Your task to perform on an android device: Go to notification settings Image 0: 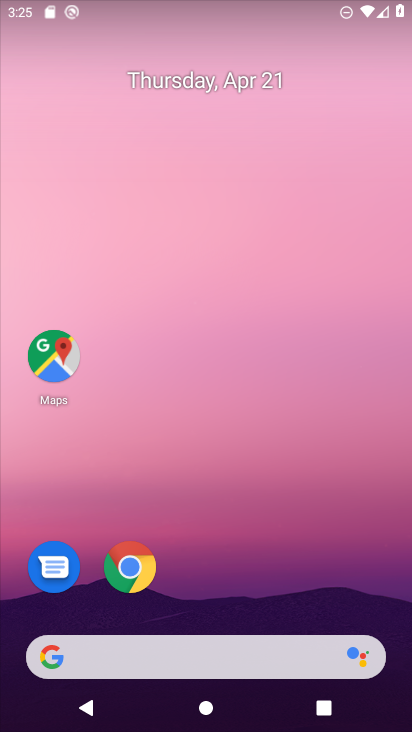
Step 0: drag from (245, 602) to (237, 105)
Your task to perform on an android device: Go to notification settings Image 1: 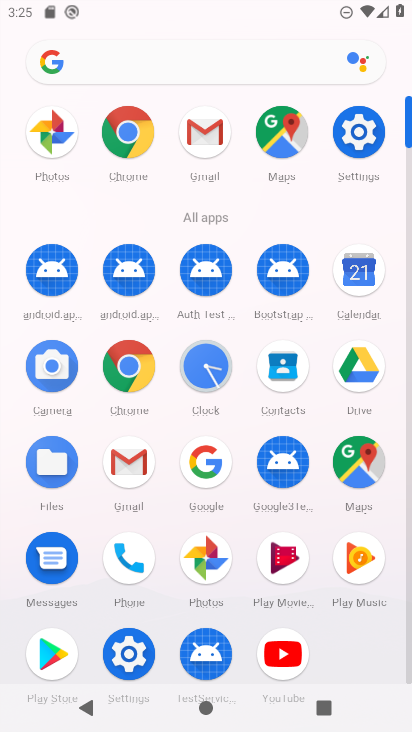
Step 1: click (106, 658)
Your task to perform on an android device: Go to notification settings Image 2: 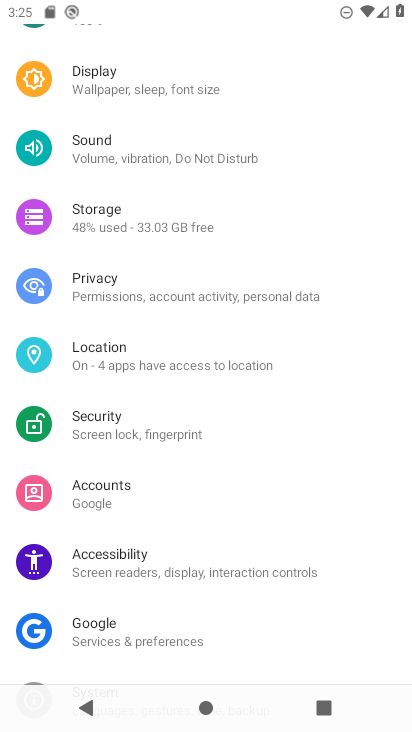
Step 2: drag from (215, 244) to (230, 530)
Your task to perform on an android device: Go to notification settings Image 3: 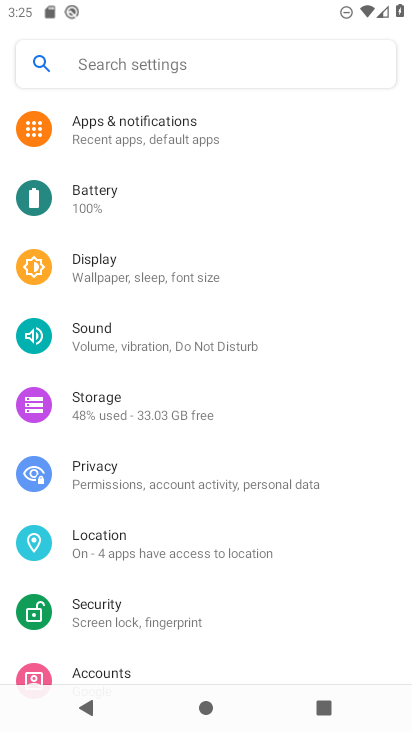
Step 3: click (175, 129)
Your task to perform on an android device: Go to notification settings Image 4: 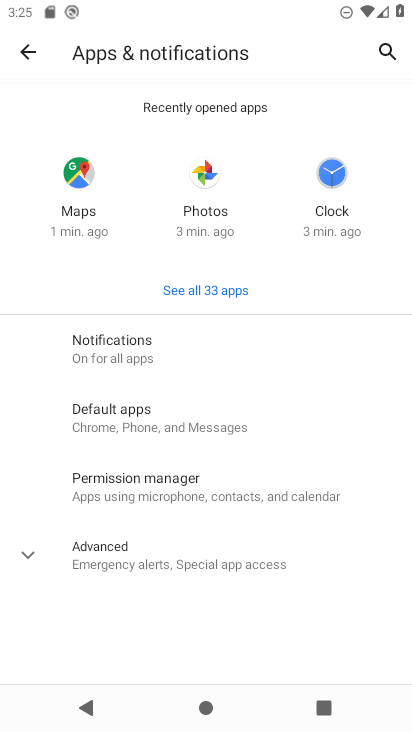
Step 4: click (196, 365)
Your task to perform on an android device: Go to notification settings Image 5: 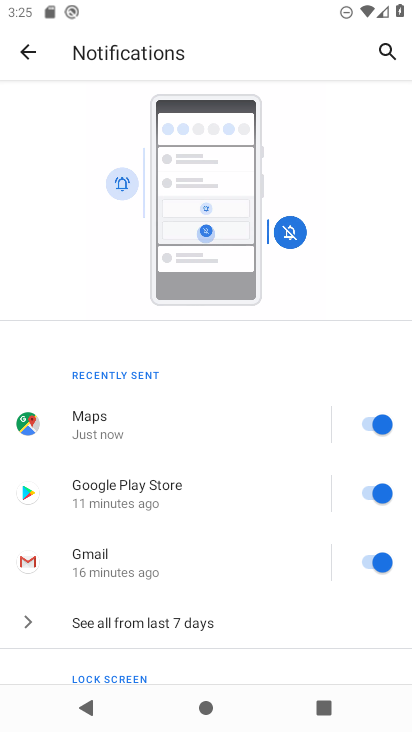
Step 5: task complete